Your task to perform on an android device: Go to CNN.com Image 0: 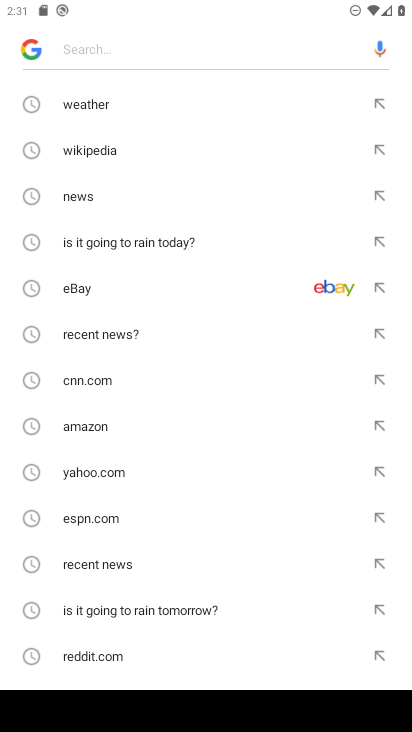
Step 0: press home button
Your task to perform on an android device: Go to CNN.com Image 1: 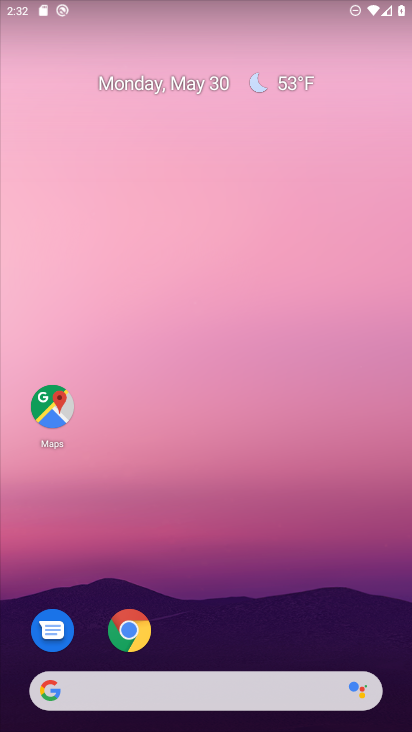
Step 1: click (108, 636)
Your task to perform on an android device: Go to CNN.com Image 2: 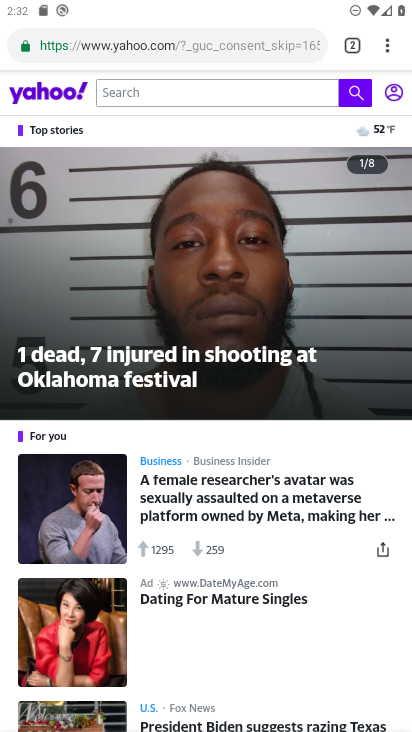
Step 2: click (192, 55)
Your task to perform on an android device: Go to CNN.com Image 3: 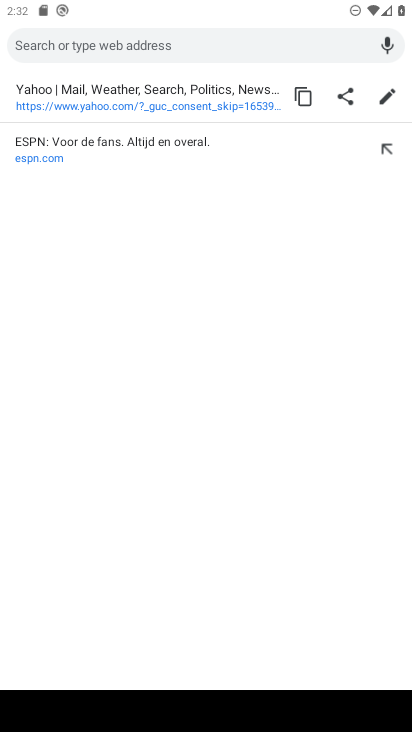
Step 3: type "cnn.com"
Your task to perform on an android device: Go to CNN.com Image 4: 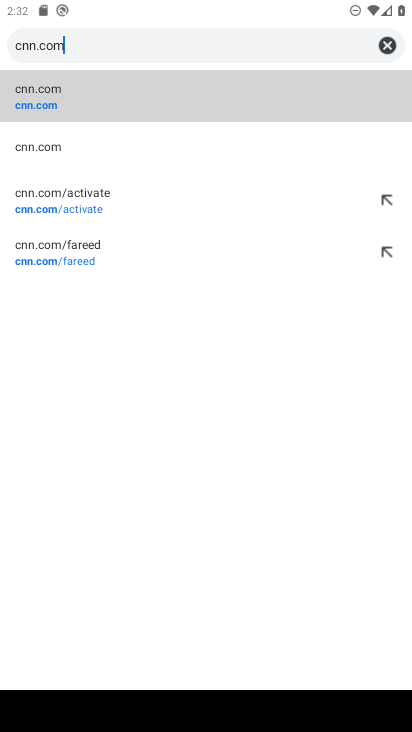
Step 4: click (80, 112)
Your task to perform on an android device: Go to CNN.com Image 5: 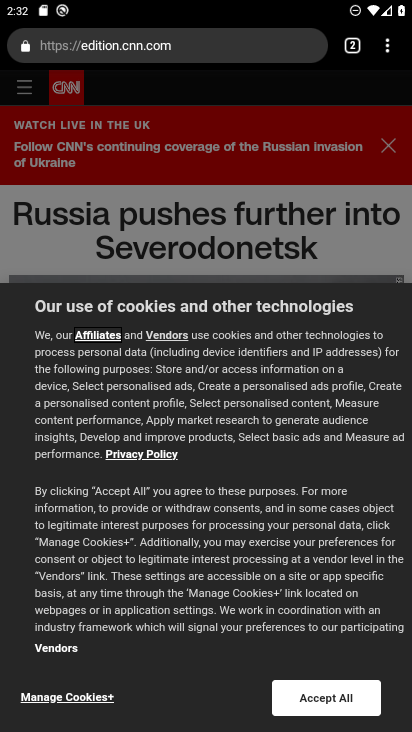
Step 5: task complete